Your task to perform on an android device: Find coffee shops on Maps Image 0: 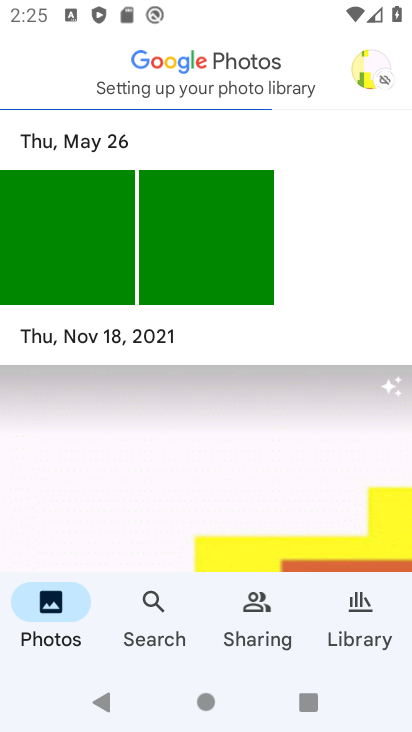
Step 0: press home button
Your task to perform on an android device: Find coffee shops on Maps Image 1: 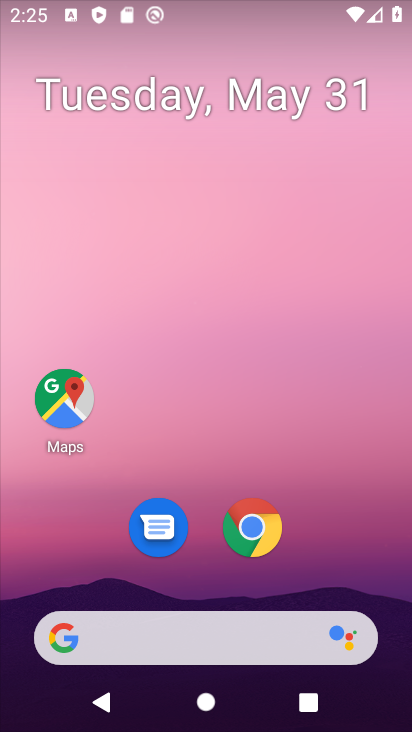
Step 1: click (64, 398)
Your task to perform on an android device: Find coffee shops on Maps Image 2: 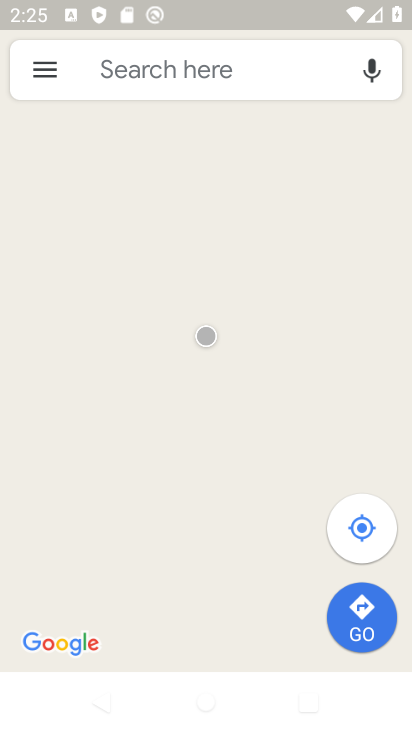
Step 2: click (51, 70)
Your task to perform on an android device: Find coffee shops on Maps Image 3: 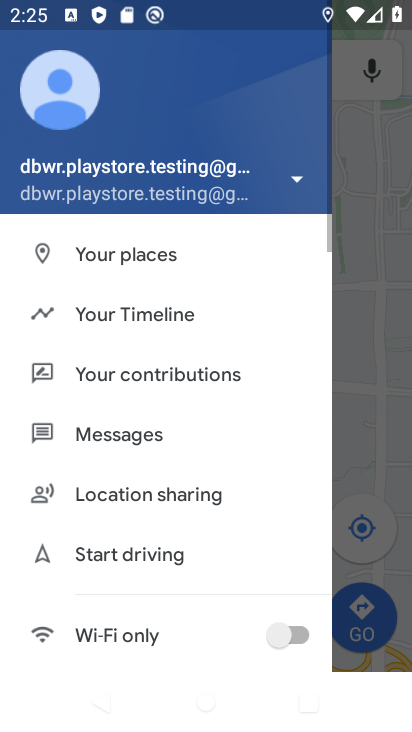
Step 3: click (352, 196)
Your task to perform on an android device: Find coffee shops on Maps Image 4: 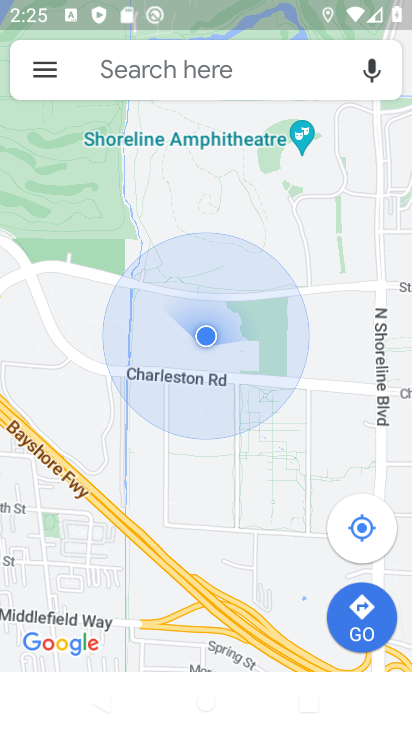
Step 4: click (190, 71)
Your task to perform on an android device: Find coffee shops on Maps Image 5: 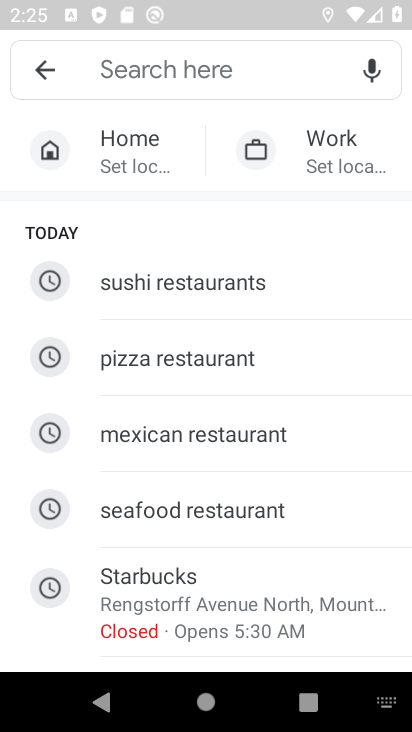
Step 5: type "coffee shop"
Your task to perform on an android device: Find coffee shops on Maps Image 6: 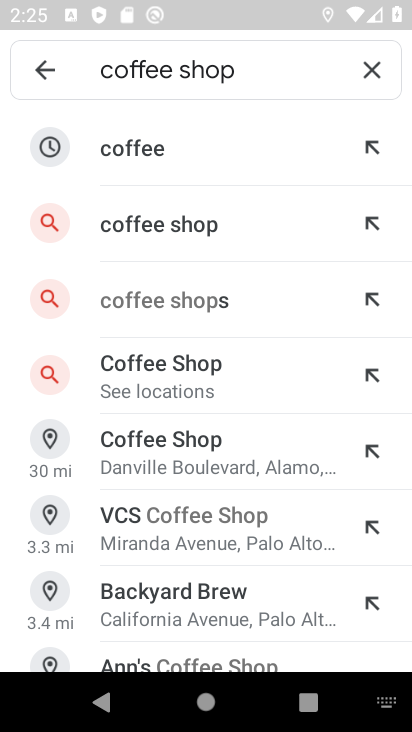
Step 6: click (165, 209)
Your task to perform on an android device: Find coffee shops on Maps Image 7: 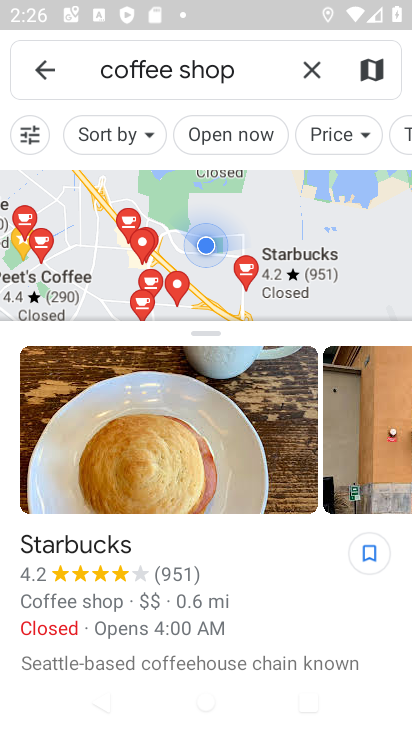
Step 7: task complete